Your task to perform on an android device: Toggle the flashlight Image 0: 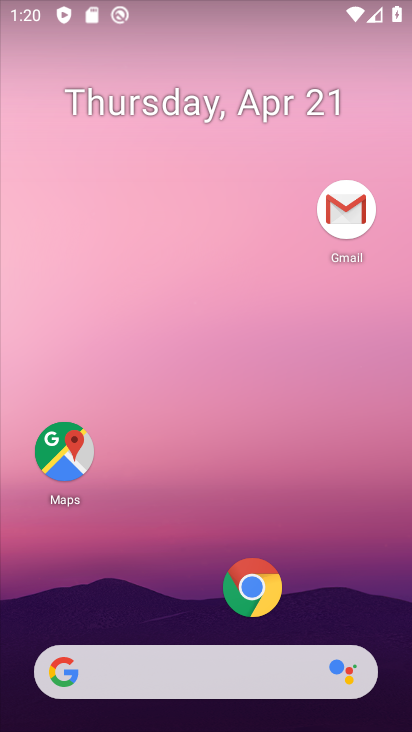
Step 0: drag from (322, 621) to (262, 196)
Your task to perform on an android device: Toggle the flashlight Image 1: 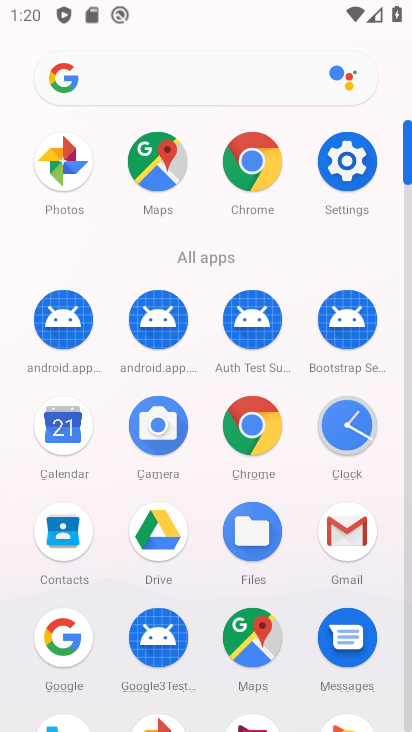
Step 1: drag from (297, 678) to (287, 392)
Your task to perform on an android device: Toggle the flashlight Image 2: 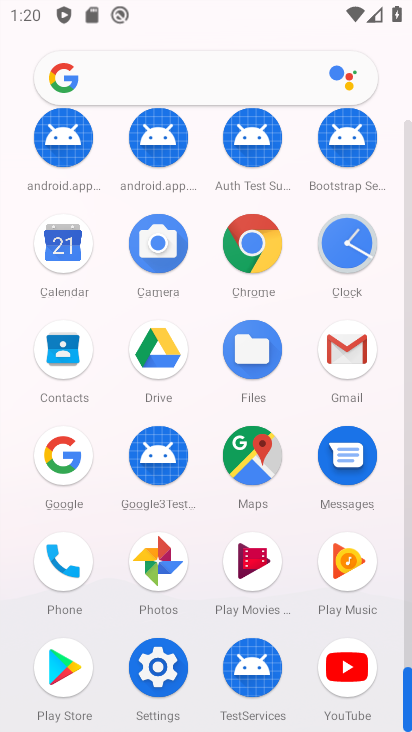
Step 2: click (137, 655)
Your task to perform on an android device: Toggle the flashlight Image 3: 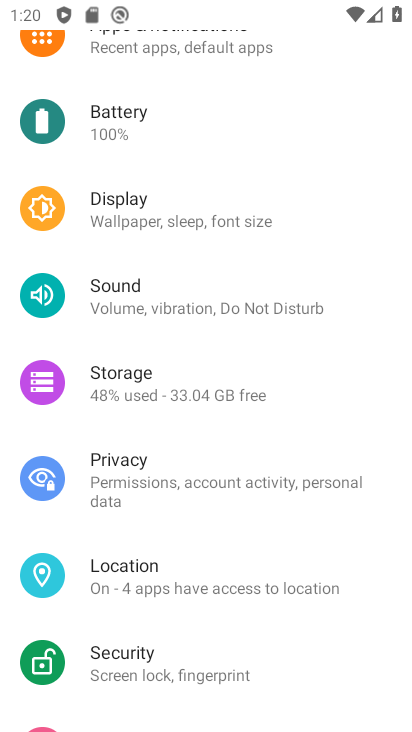
Step 3: task complete